Your task to perform on an android device: Check out the top rated books on Goodreads. Image 0: 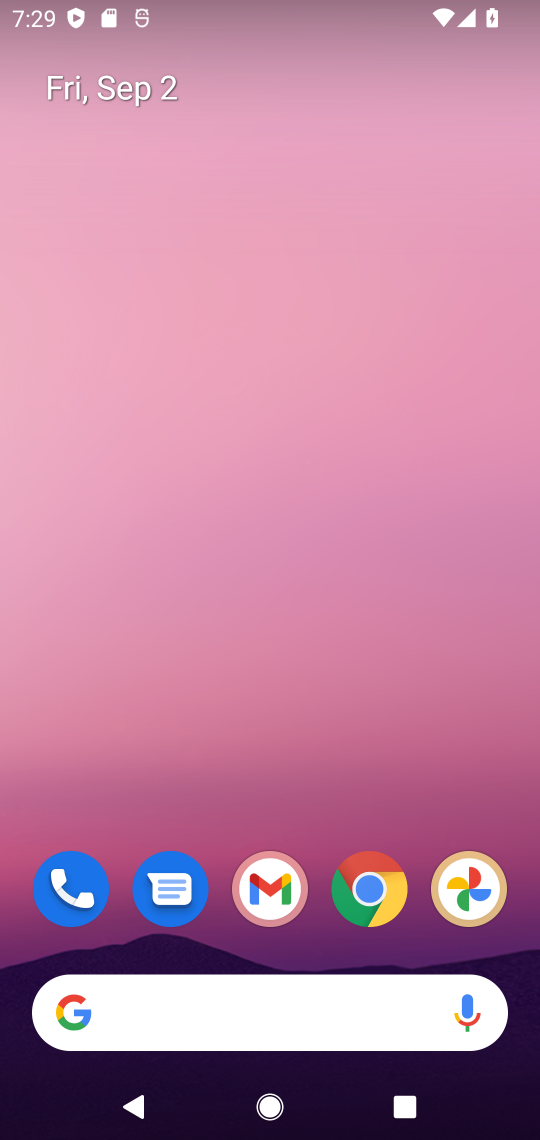
Step 0: click (239, 1030)
Your task to perform on an android device: Check out the top rated books on Goodreads. Image 1: 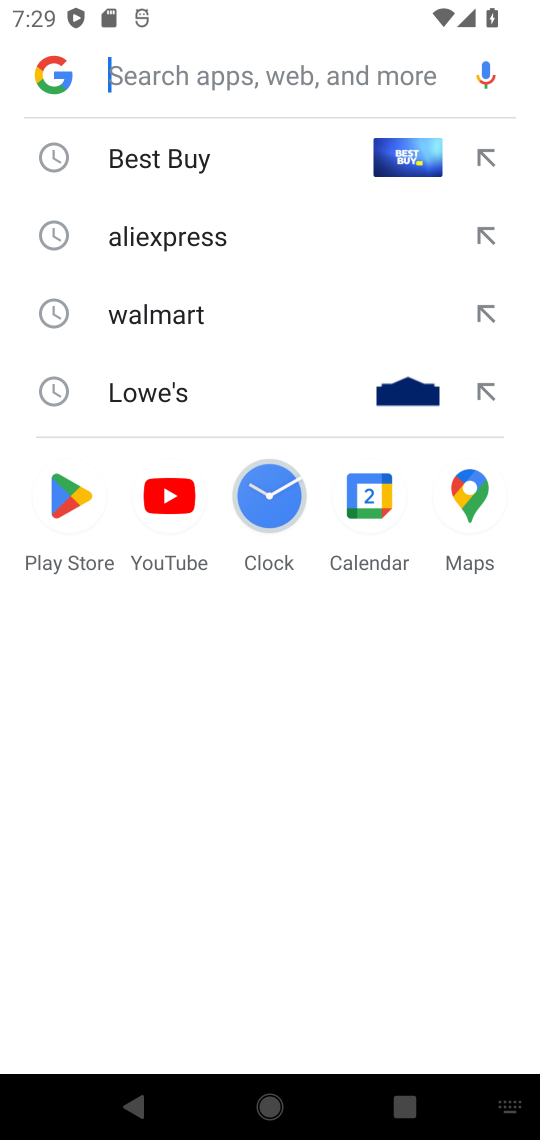
Step 1: type "Goodreads"
Your task to perform on an android device: Check out the top rated books on Goodreads. Image 2: 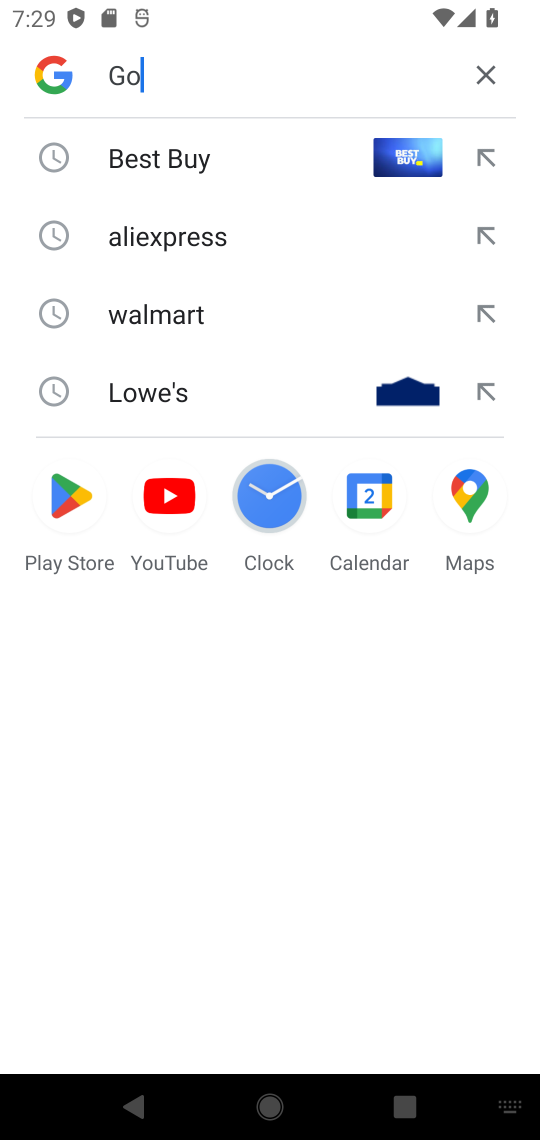
Step 2: type ""
Your task to perform on an android device: Check out the top rated books on Goodreads. Image 3: 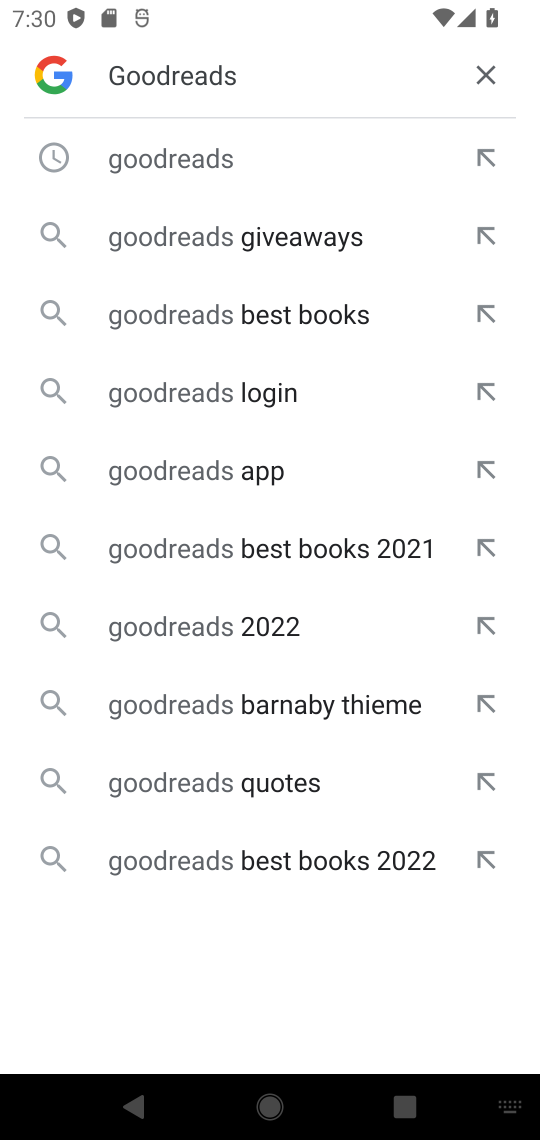
Step 3: click (322, 154)
Your task to perform on an android device: Check out the top rated books on Goodreads. Image 4: 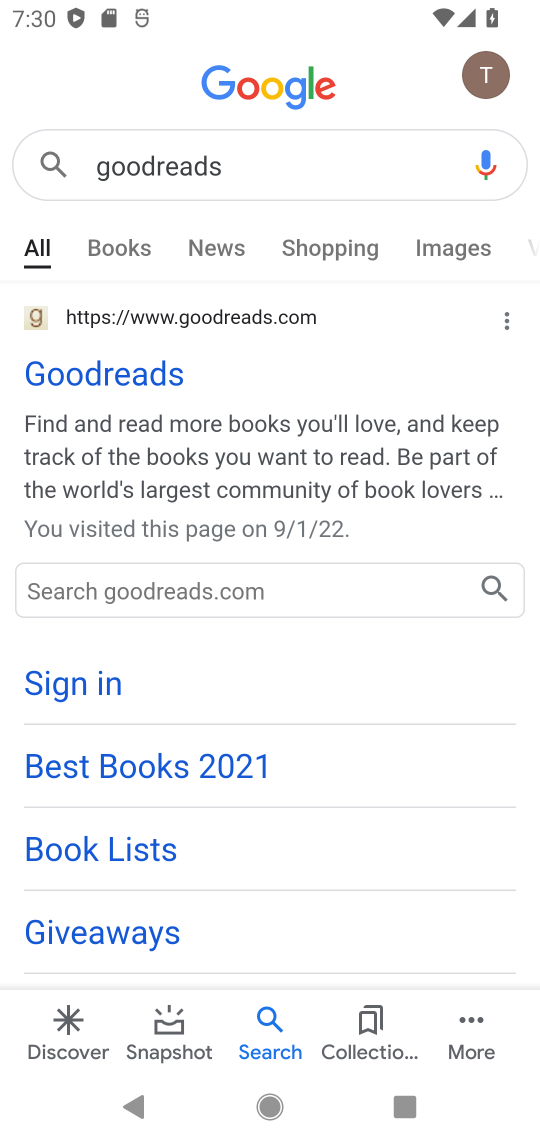
Step 4: click (124, 369)
Your task to perform on an android device: Check out the top rated books on Goodreads. Image 5: 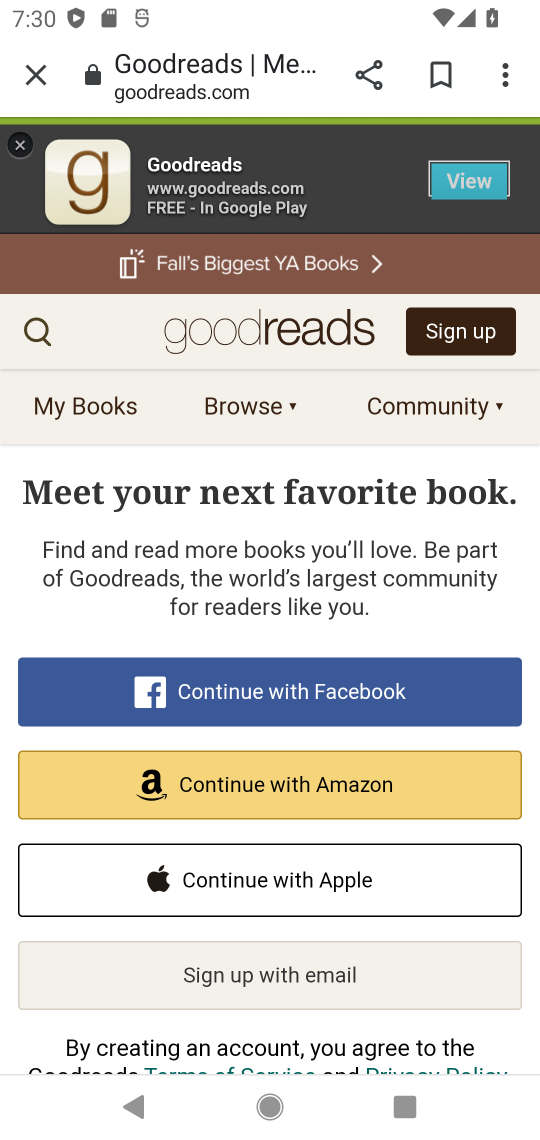
Step 5: drag from (272, 472) to (276, 231)
Your task to perform on an android device: Check out the top rated books on Goodreads. Image 6: 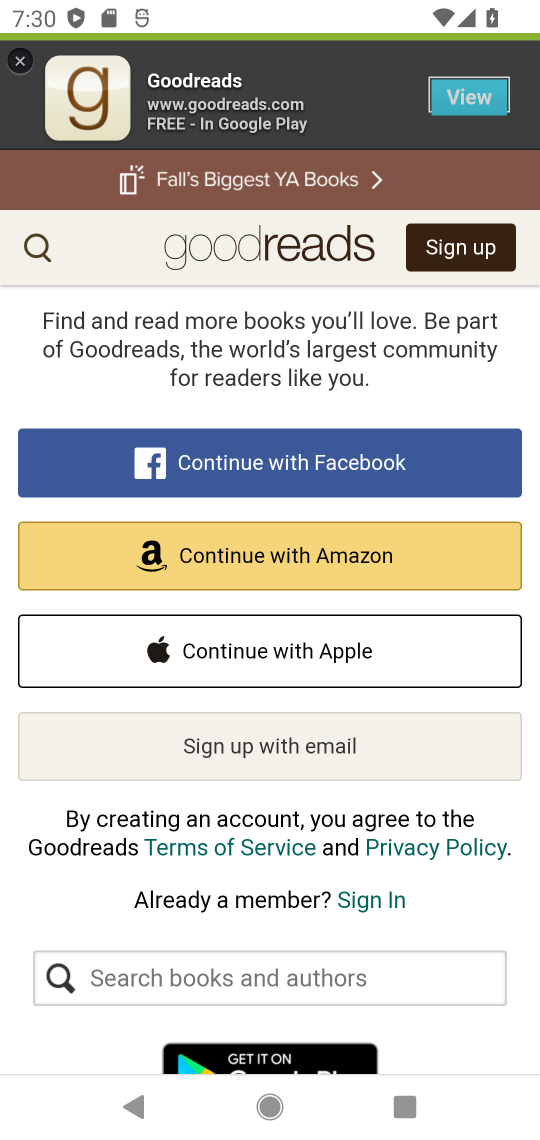
Step 6: drag from (292, 915) to (299, 479)
Your task to perform on an android device: Check out the top rated books on Goodreads. Image 7: 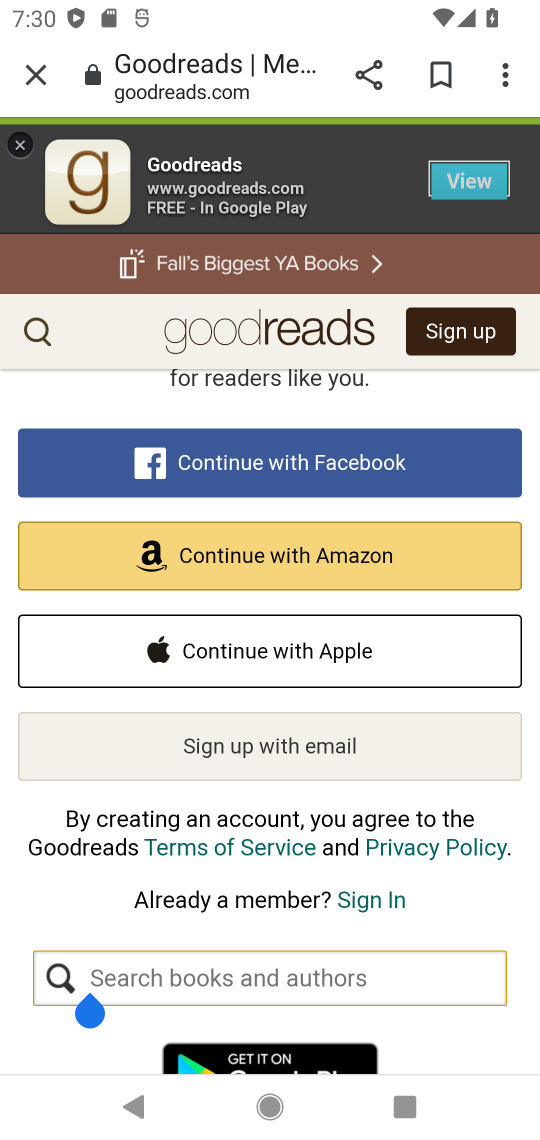
Step 7: drag from (325, 933) to (364, 591)
Your task to perform on an android device: Check out the top rated books on Goodreads. Image 8: 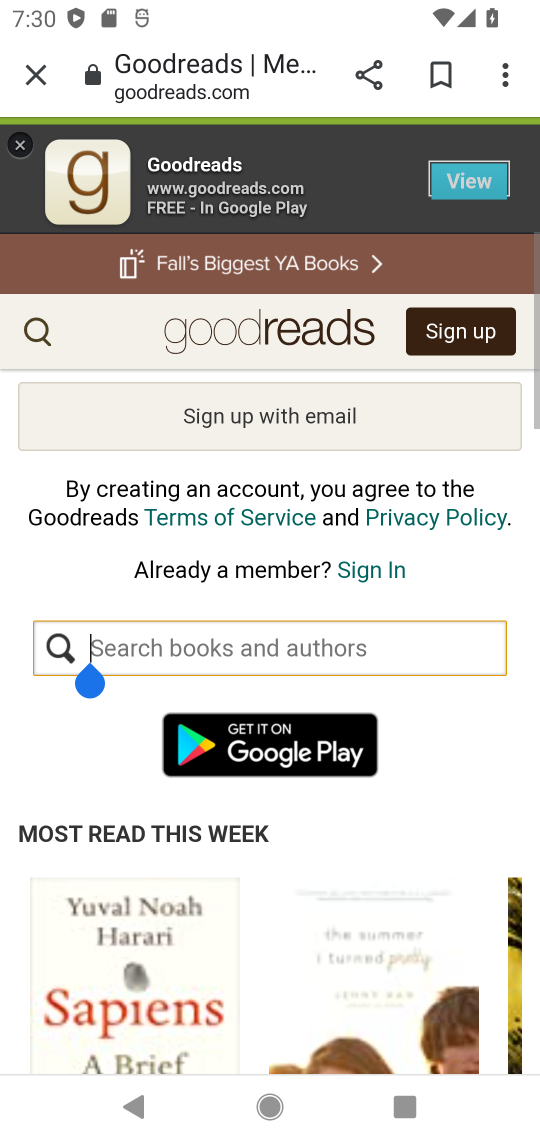
Step 8: click (325, 652)
Your task to perform on an android device: Check out the top rated books on Goodreads. Image 9: 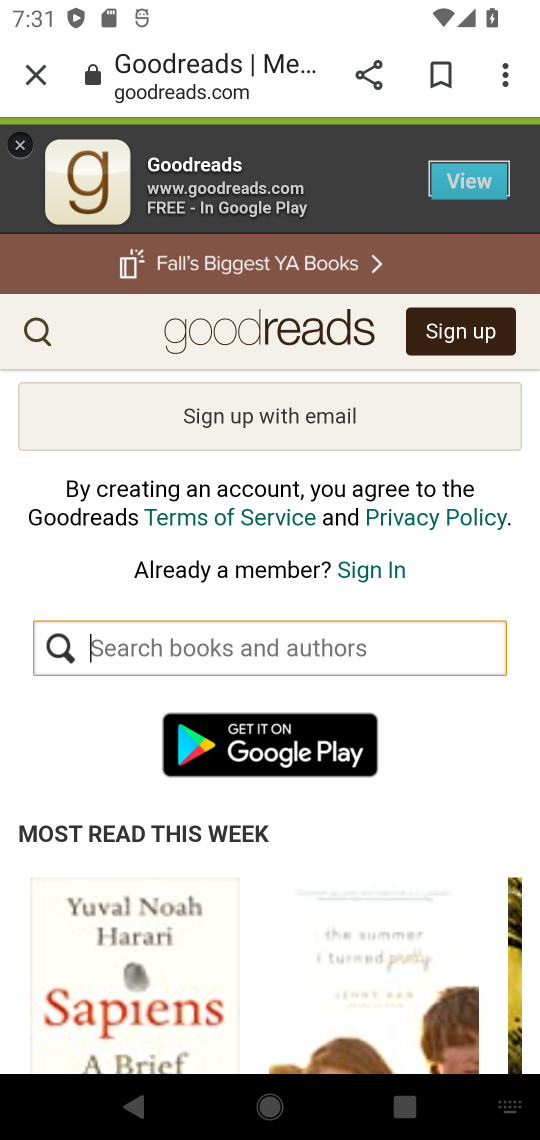
Step 9: type "top rated books"
Your task to perform on an android device: Check out the top rated books on Goodreads. Image 10: 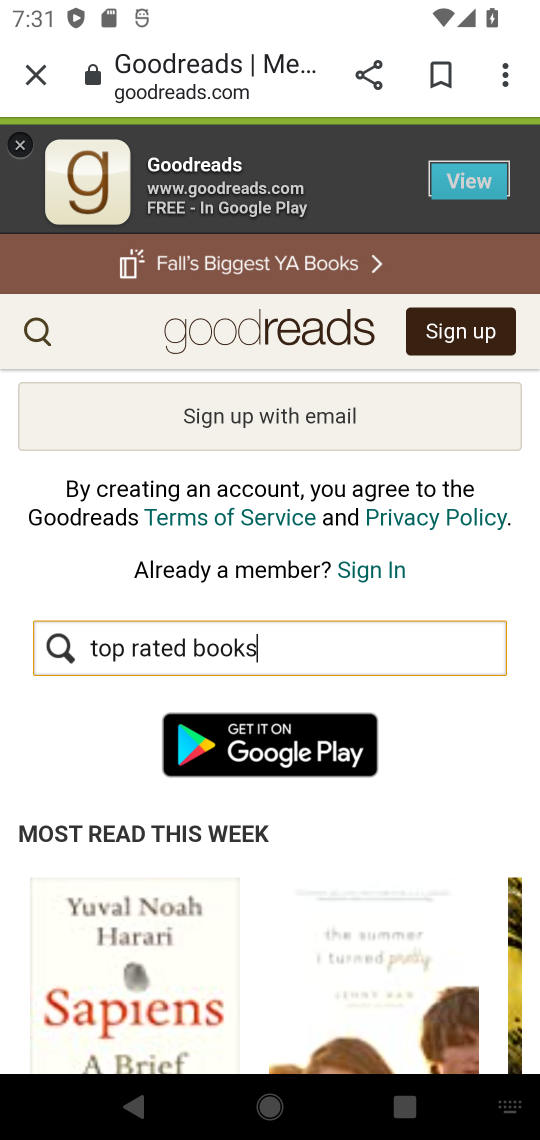
Step 10: click (55, 654)
Your task to perform on an android device: Check out the top rated books on Goodreads. Image 11: 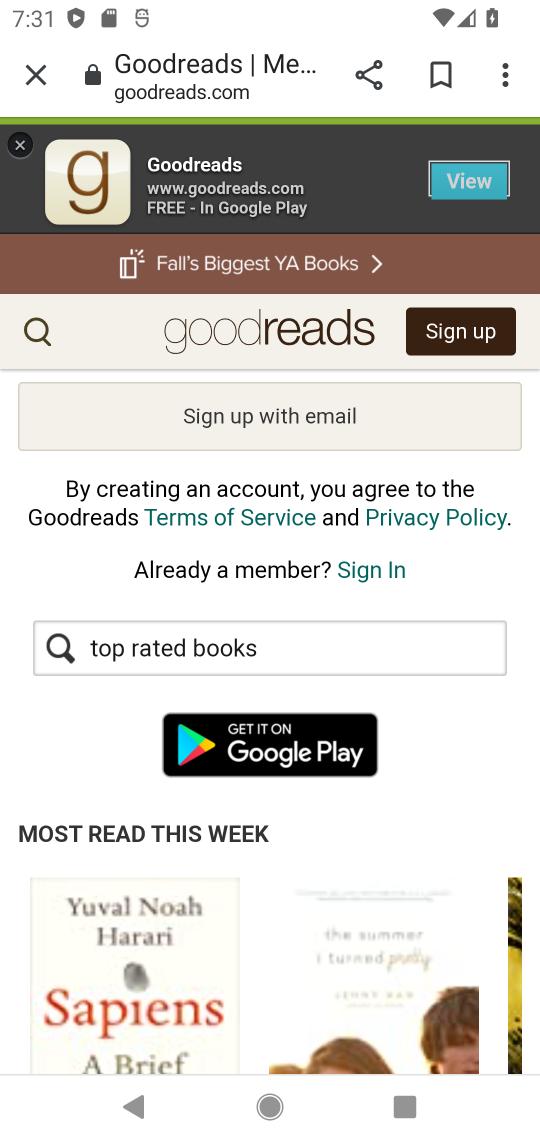
Step 11: click (73, 625)
Your task to perform on an android device: Check out the top rated books on Goodreads. Image 12: 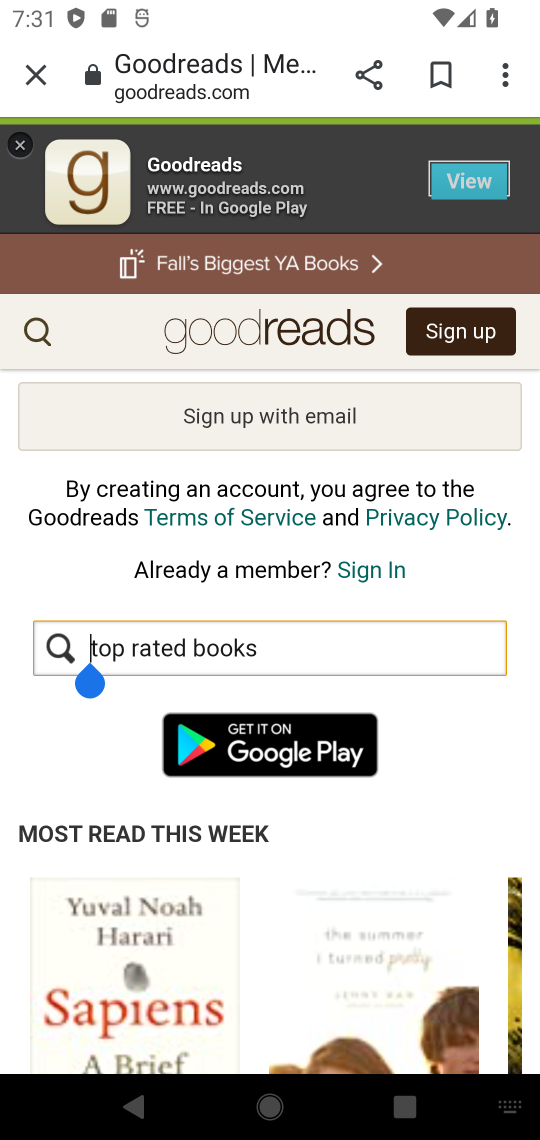
Step 12: click (64, 631)
Your task to perform on an android device: Check out the top rated books on Goodreads. Image 13: 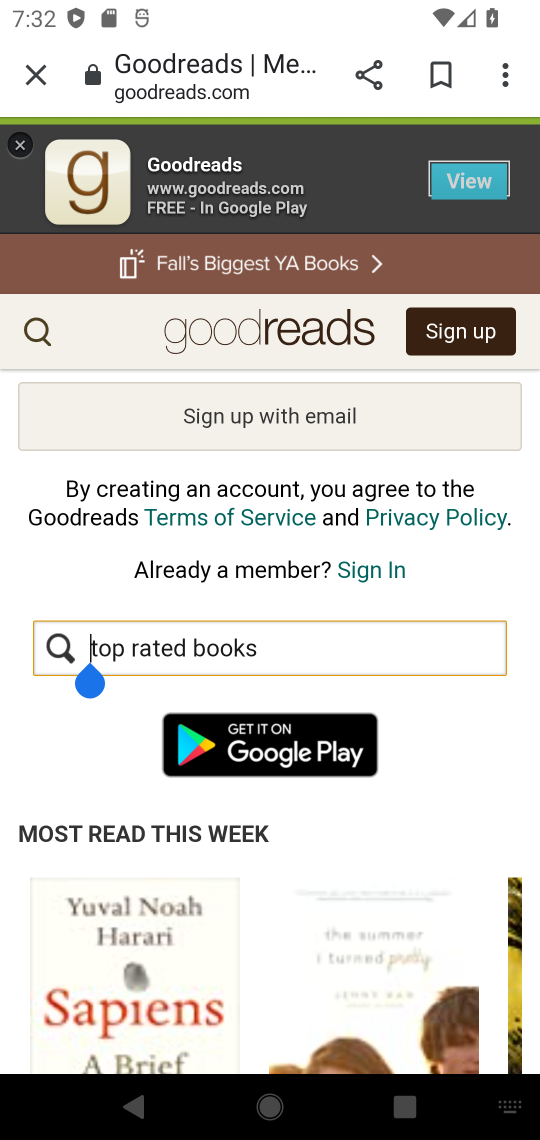
Step 13: click (63, 652)
Your task to perform on an android device: Check out the top rated books on Goodreads. Image 14: 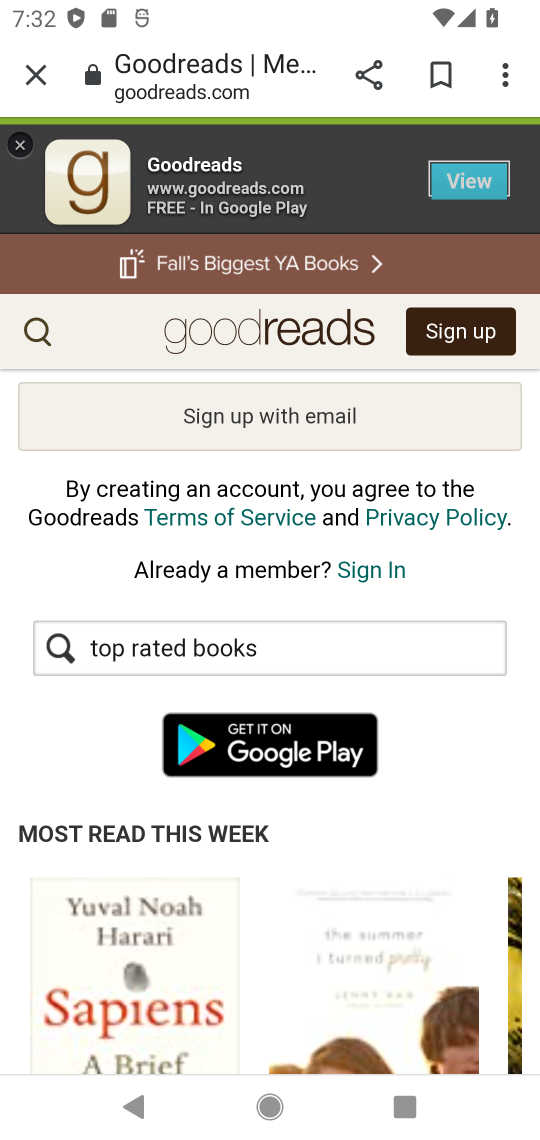
Step 14: task complete